Your task to perform on an android device: turn off smart reply in the gmail app Image 0: 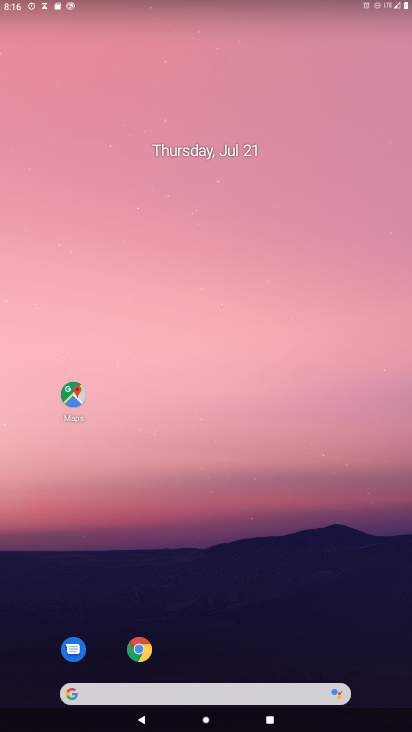
Step 0: drag from (379, 614) to (204, 98)
Your task to perform on an android device: turn off smart reply in the gmail app Image 1: 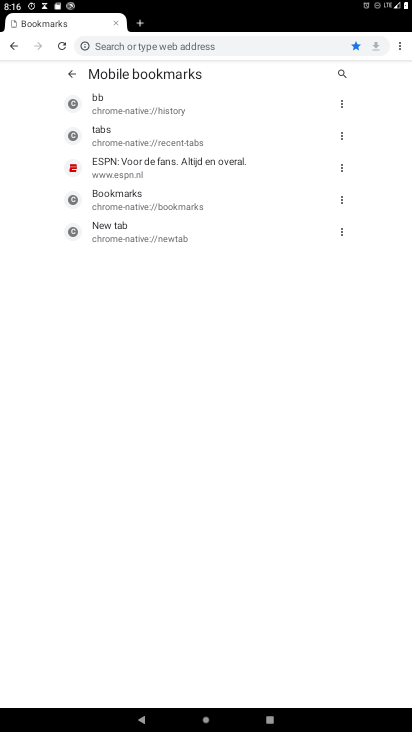
Step 1: press home button
Your task to perform on an android device: turn off smart reply in the gmail app Image 2: 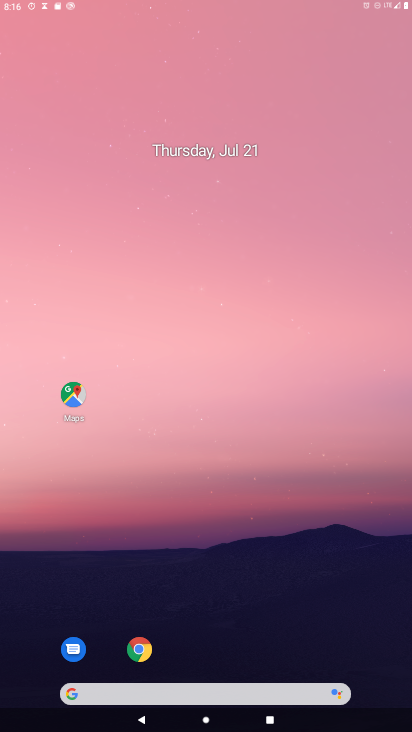
Step 2: drag from (344, 653) to (214, 45)
Your task to perform on an android device: turn off smart reply in the gmail app Image 3: 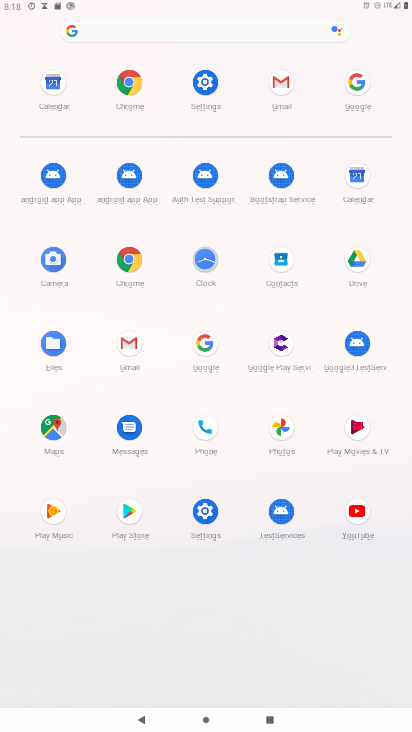
Step 3: click (131, 349)
Your task to perform on an android device: turn off smart reply in the gmail app Image 4: 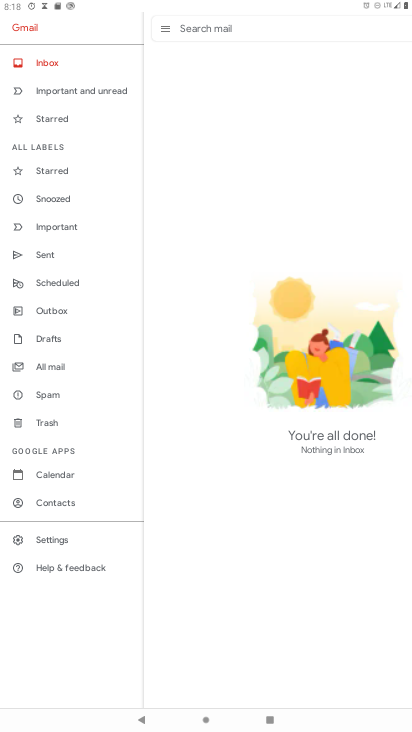
Step 4: click (34, 535)
Your task to perform on an android device: turn off smart reply in the gmail app Image 5: 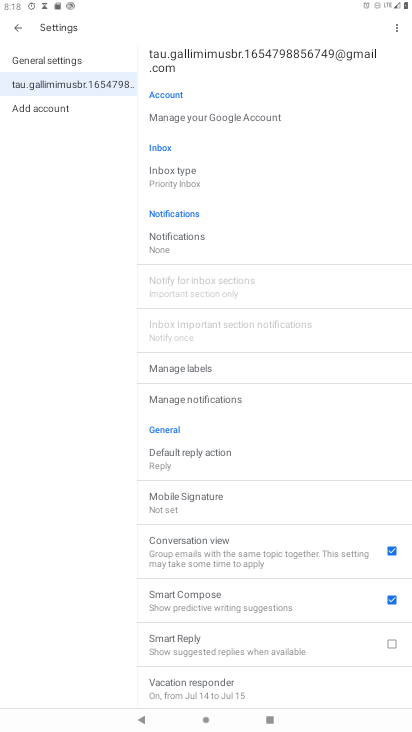
Step 5: task complete